Your task to perform on an android device: Go to Android settings Image 0: 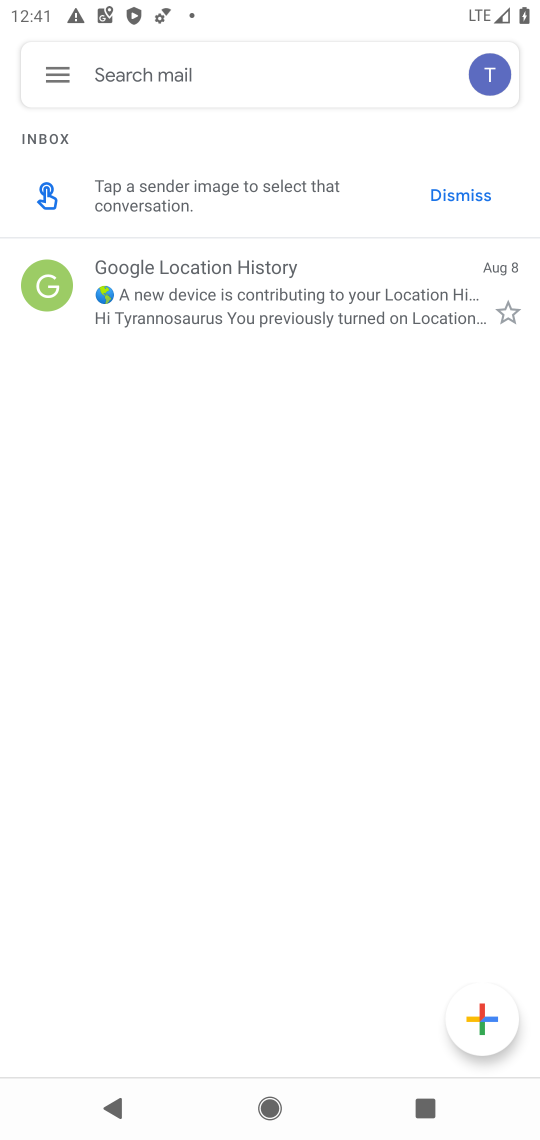
Step 0: press home button
Your task to perform on an android device: Go to Android settings Image 1: 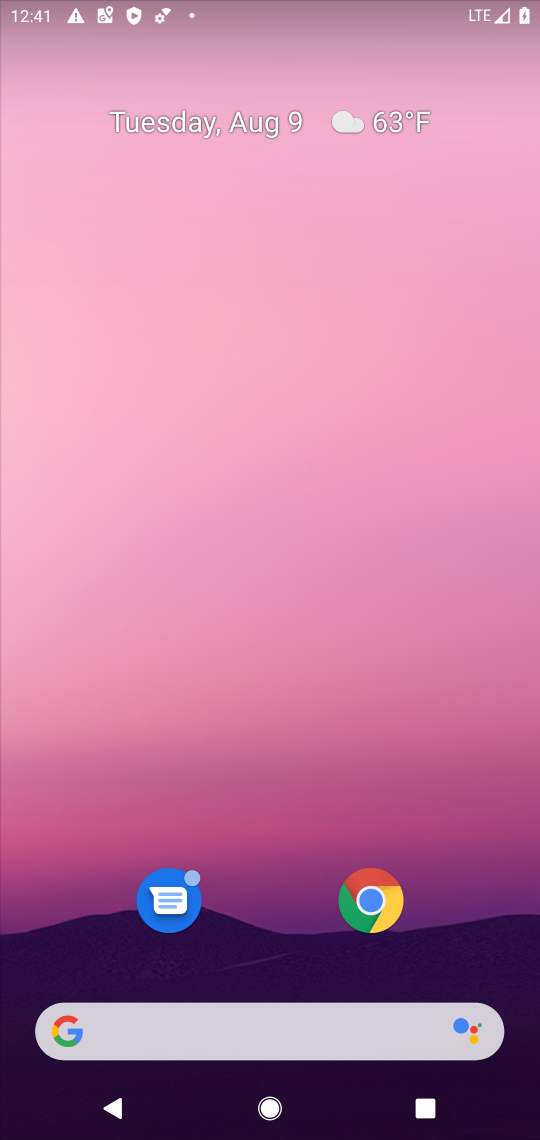
Step 1: drag from (265, 943) to (326, 94)
Your task to perform on an android device: Go to Android settings Image 2: 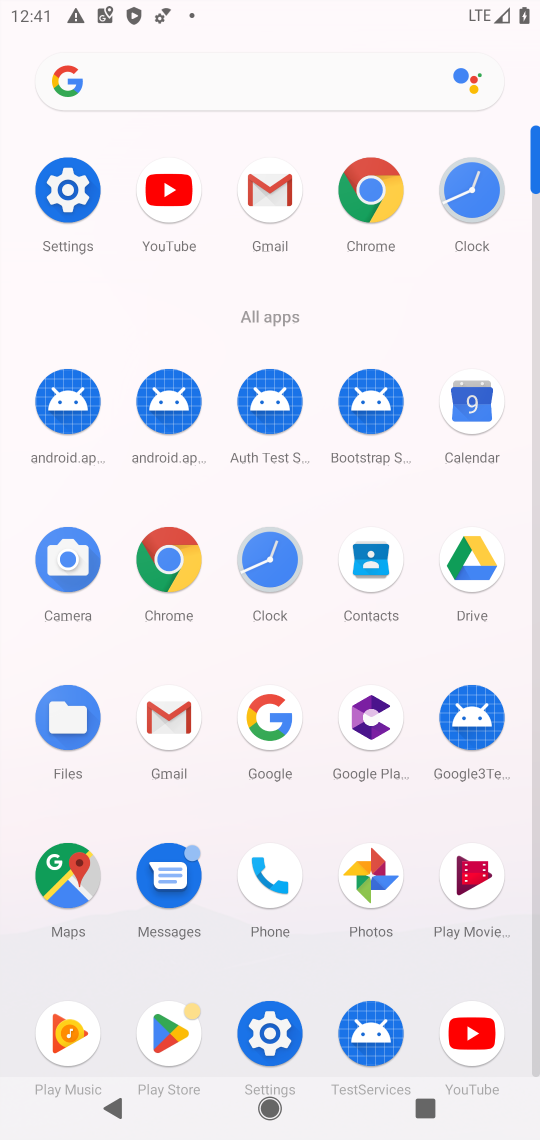
Step 2: click (63, 186)
Your task to perform on an android device: Go to Android settings Image 3: 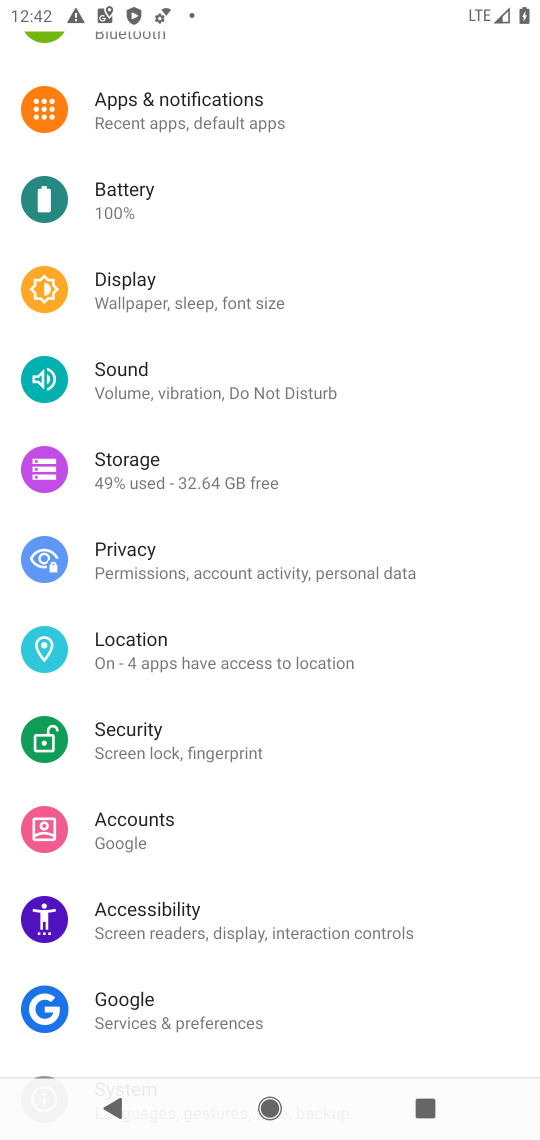
Step 3: drag from (445, 403) to (451, 573)
Your task to perform on an android device: Go to Android settings Image 4: 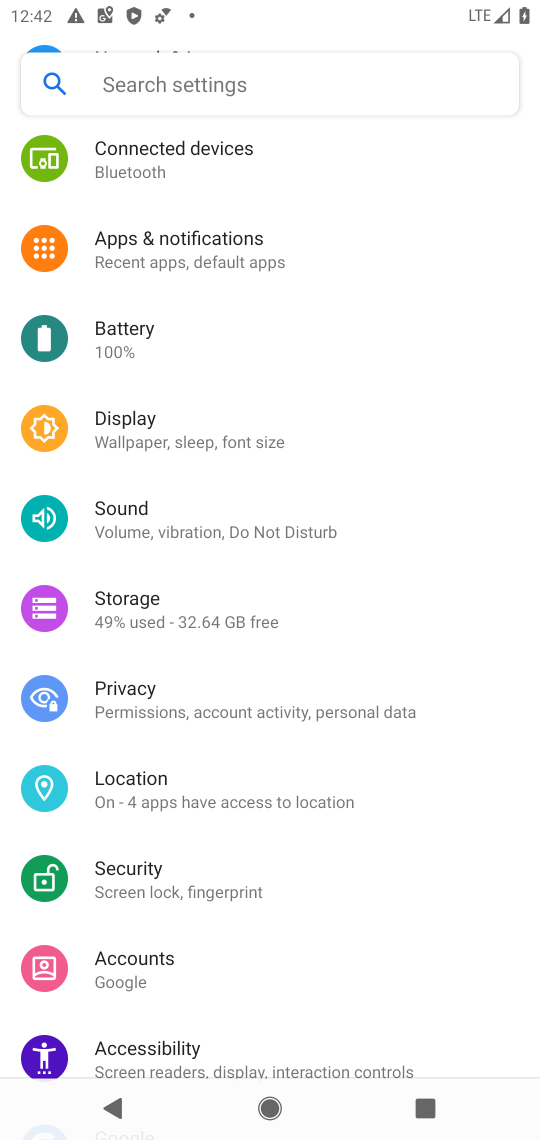
Step 4: drag from (447, 314) to (458, 553)
Your task to perform on an android device: Go to Android settings Image 5: 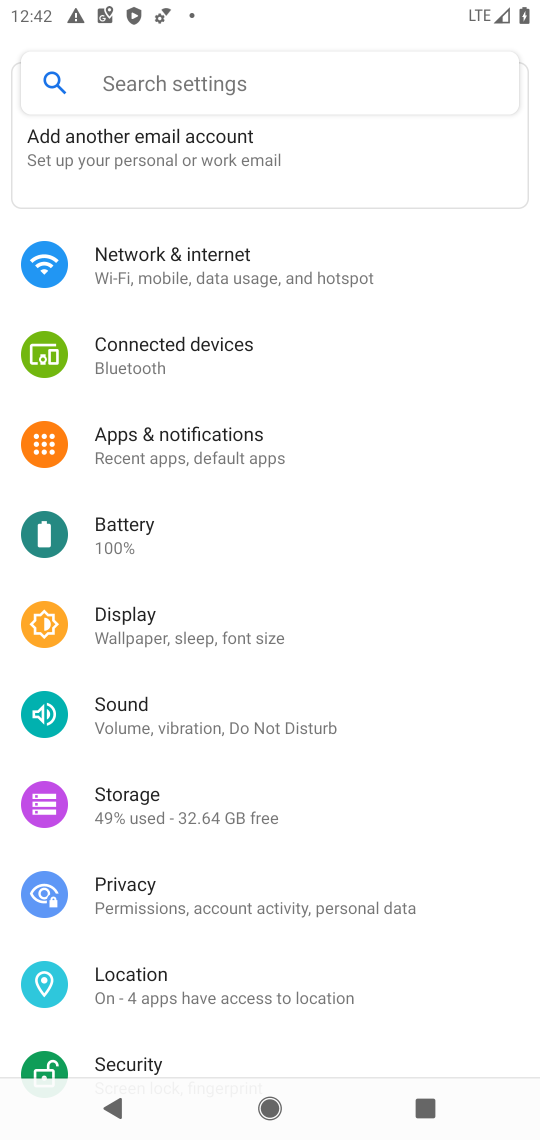
Step 5: drag from (450, 278) to (448, 630)
Your task to perform on an android device: Go to Android settings Image 6: 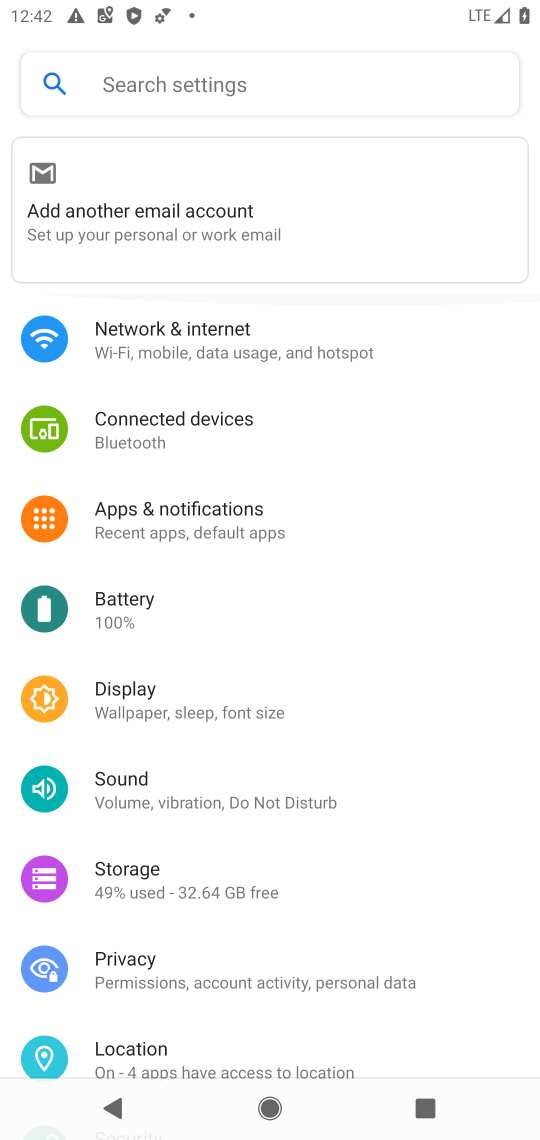
Step 6: drag from (454, 779) to (480, 462)
Your task to perform on an android device: Go to Android settings Image 7: 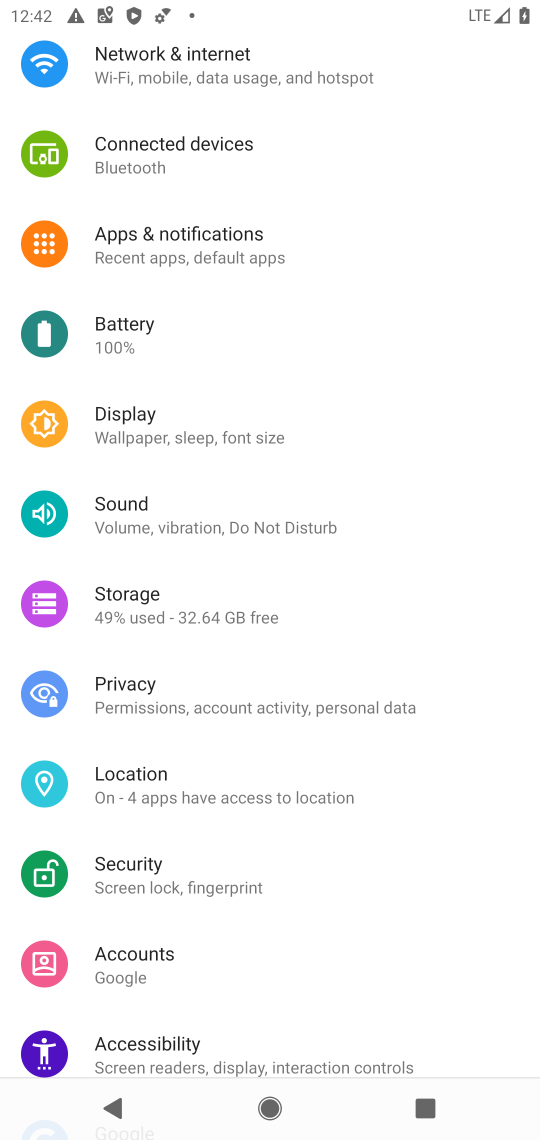
Step 7: drag from (438, 814) to (473, 610)
Your task to perform on an android device: Go to Android settings Image 8: 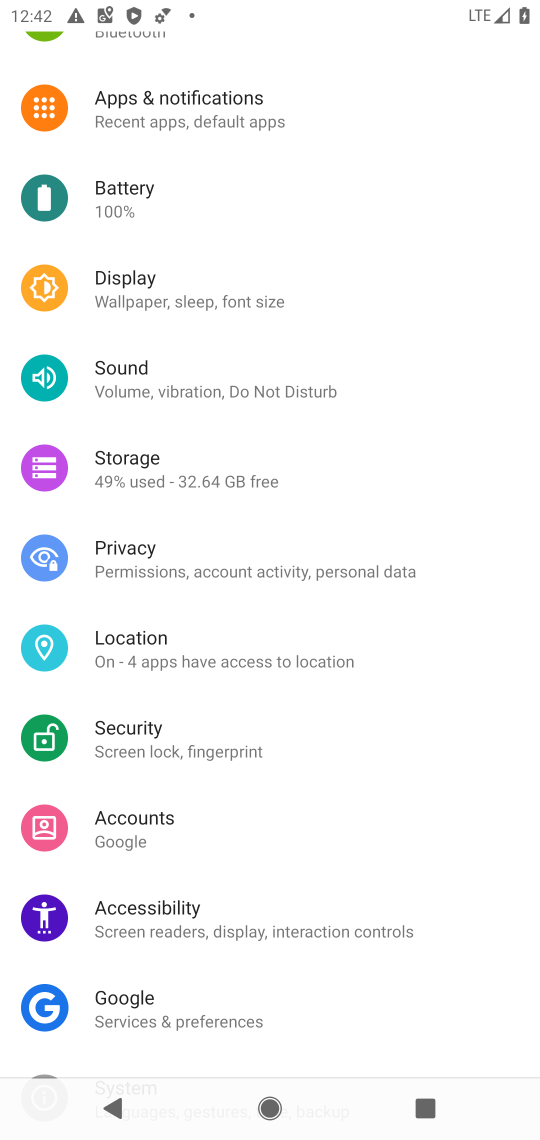
Step 8: drag from (437, 787) to (458, 529)
Your task to perform on an android device: Go to Android settings Image 9: 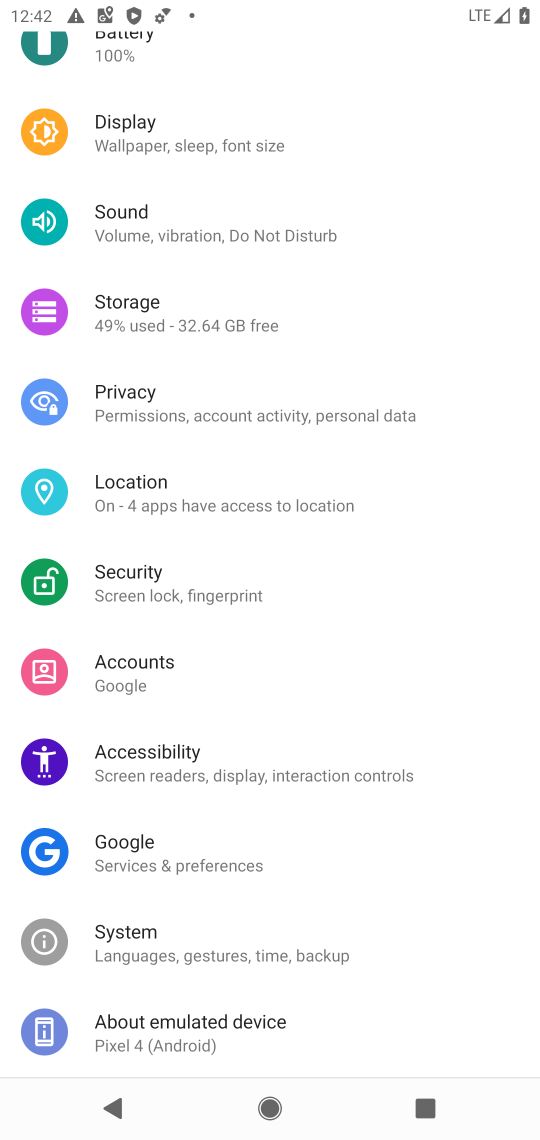
Step 9: drag from (431, 891) to (437, 604)
Your task to perform on an android device: Go to Android settings Image 10: 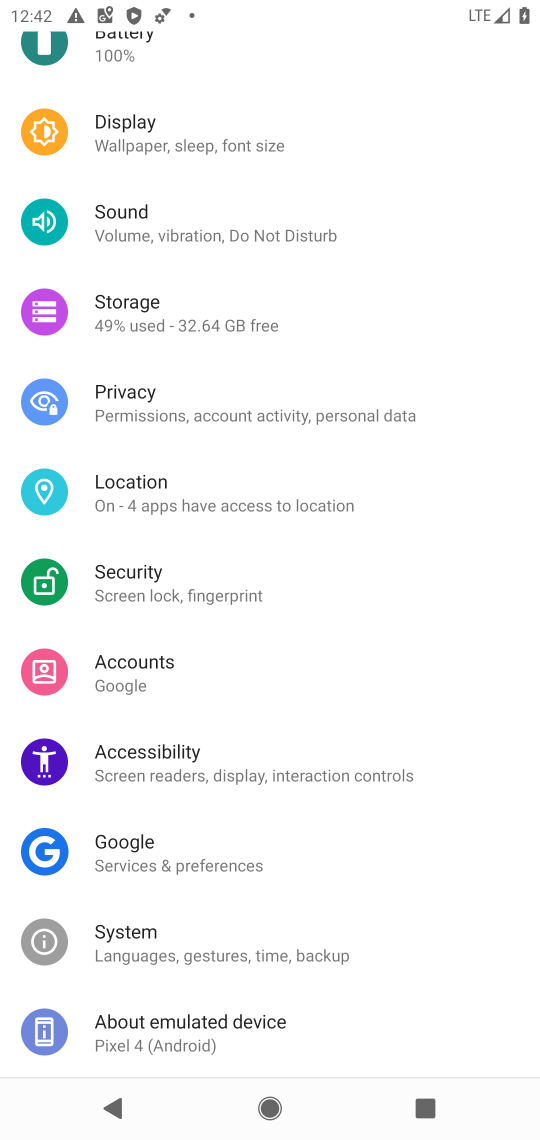
Step 10: click (318, 953)
Your task to perform on an android device: Go to Android settings Image 11: 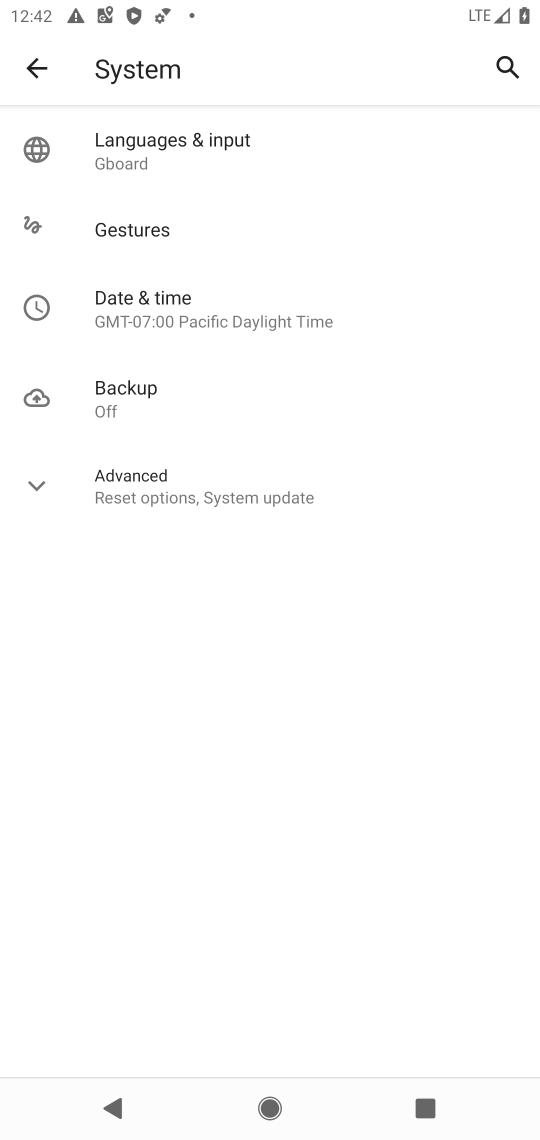
Step 11: click (201, 498)
Your task to perform on an android device: Go to Android settings Image 12: 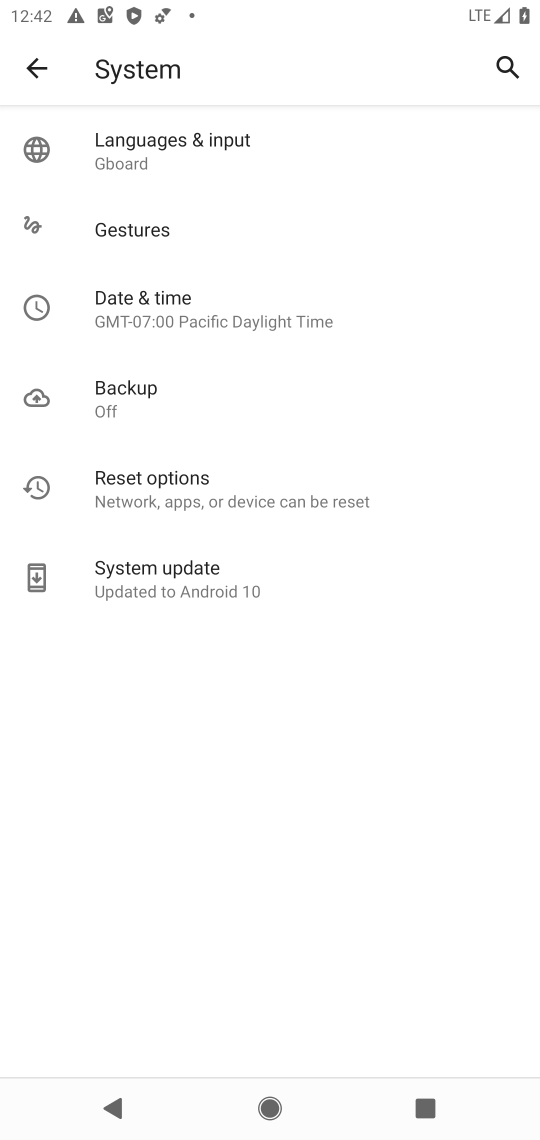
Step 12: task complete